Your task to perform on an android device: Search for hotels in Las Vegas Image 0: 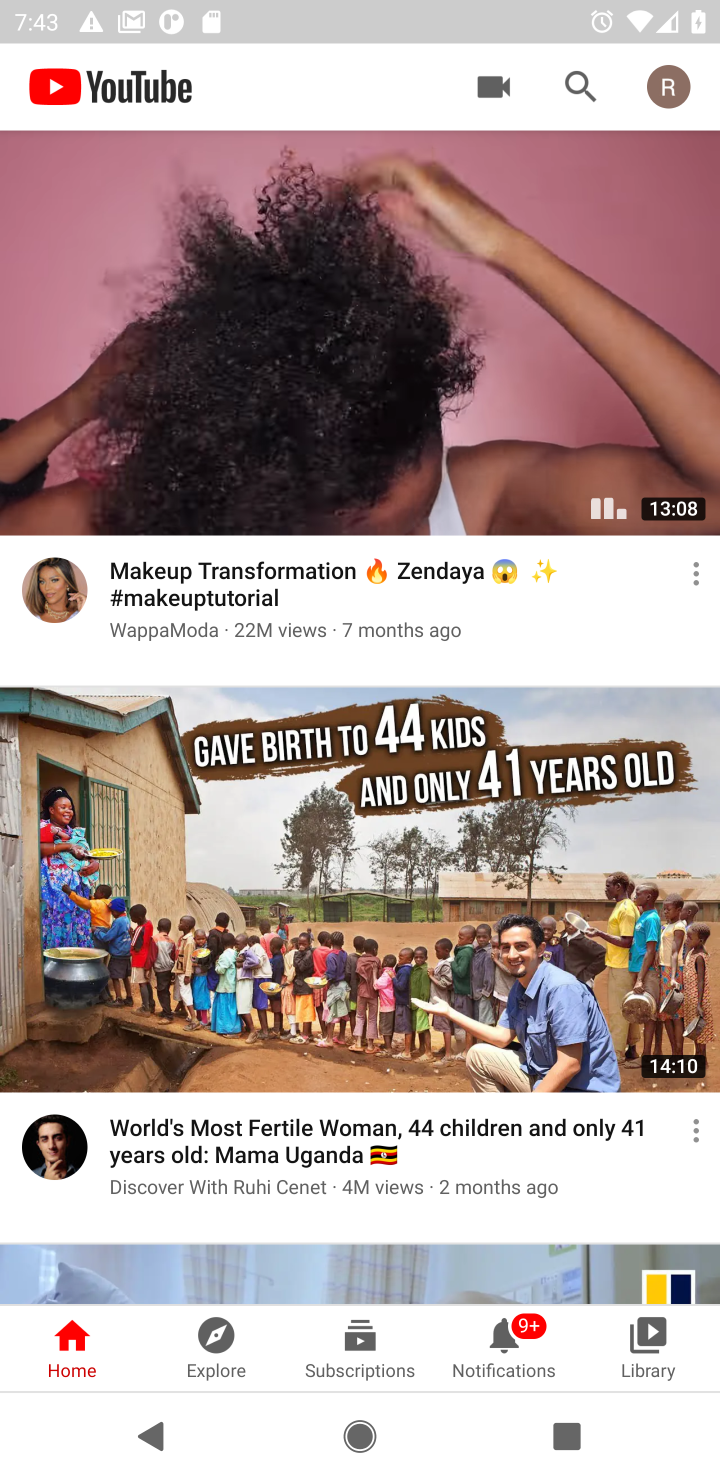
Step 0: press home button
Your task to perform on an android device: Search for hotels in Las Vegas Image 1: 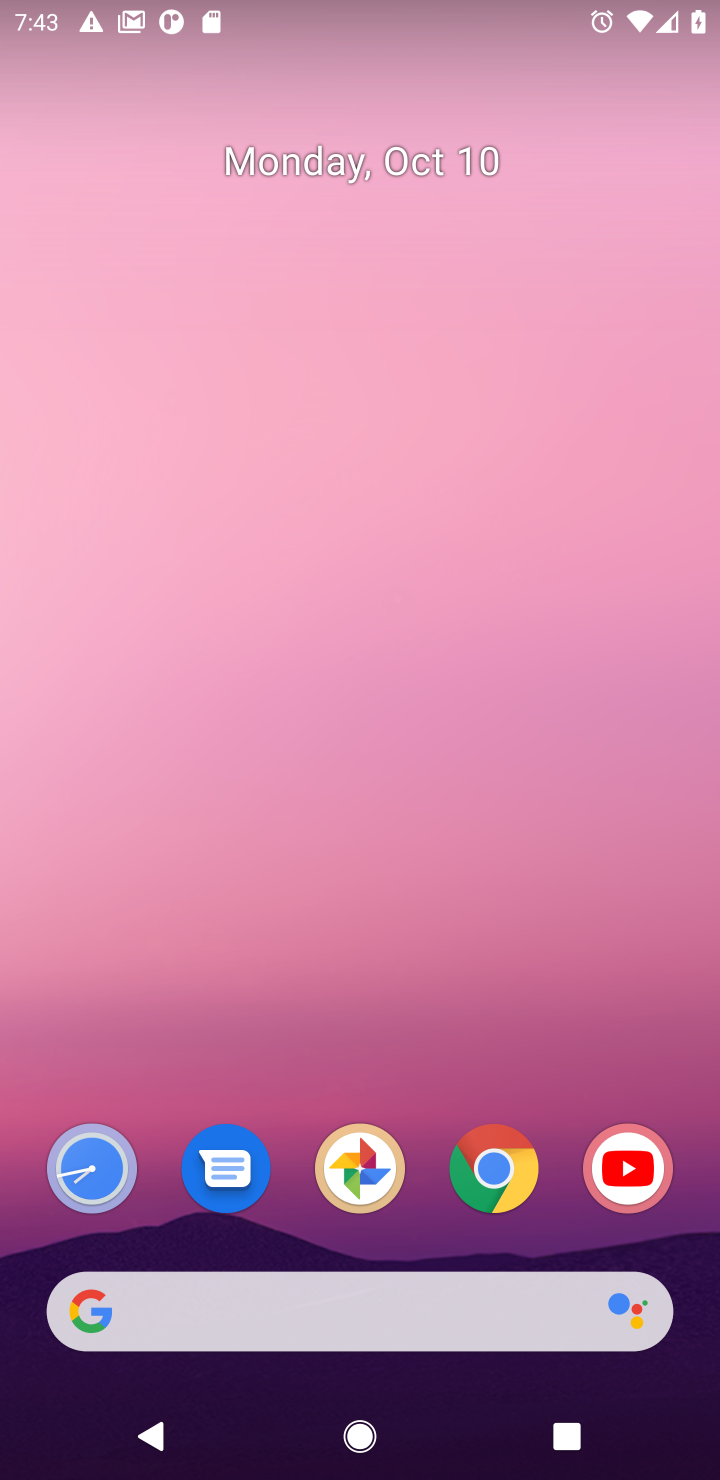
Step 1: click (492, 1172)
Your task to perform on an android device: Search for hotels in Las Vegas Image 2: 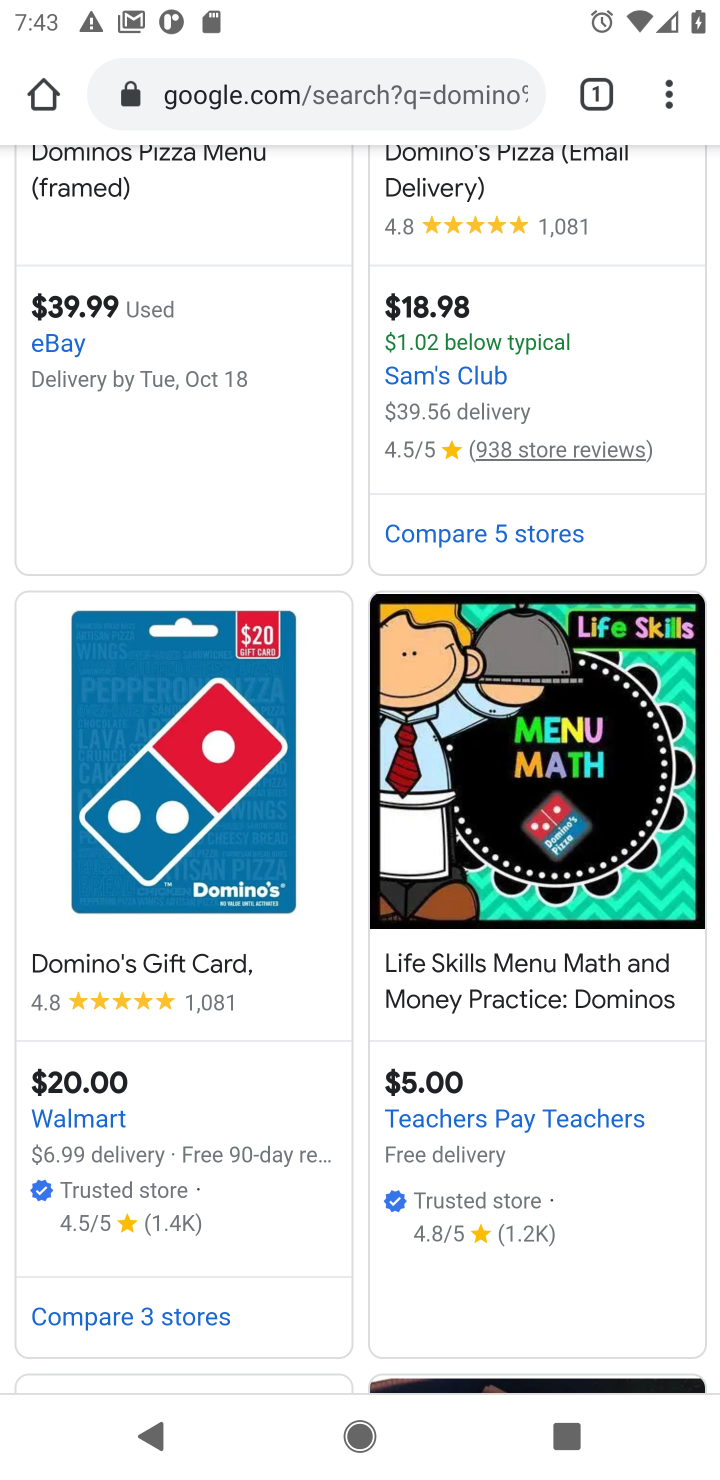
Step 2: click (281, 73)
Your task to perform on an android device: Search for hotels in Las Vegas Image 3: 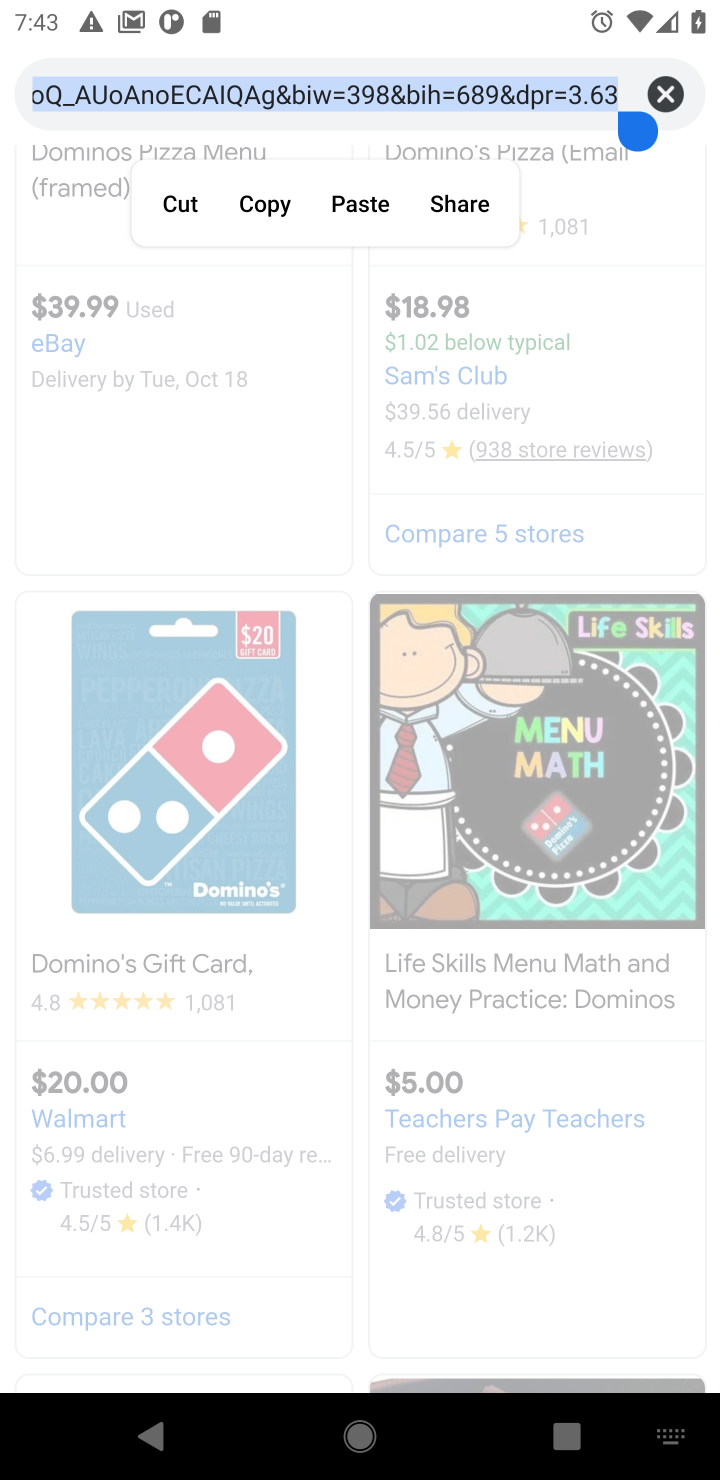
Step 3: click (685, 89)
Your task to perform on an android device: Search for hotels in Las Vegas Image 4: 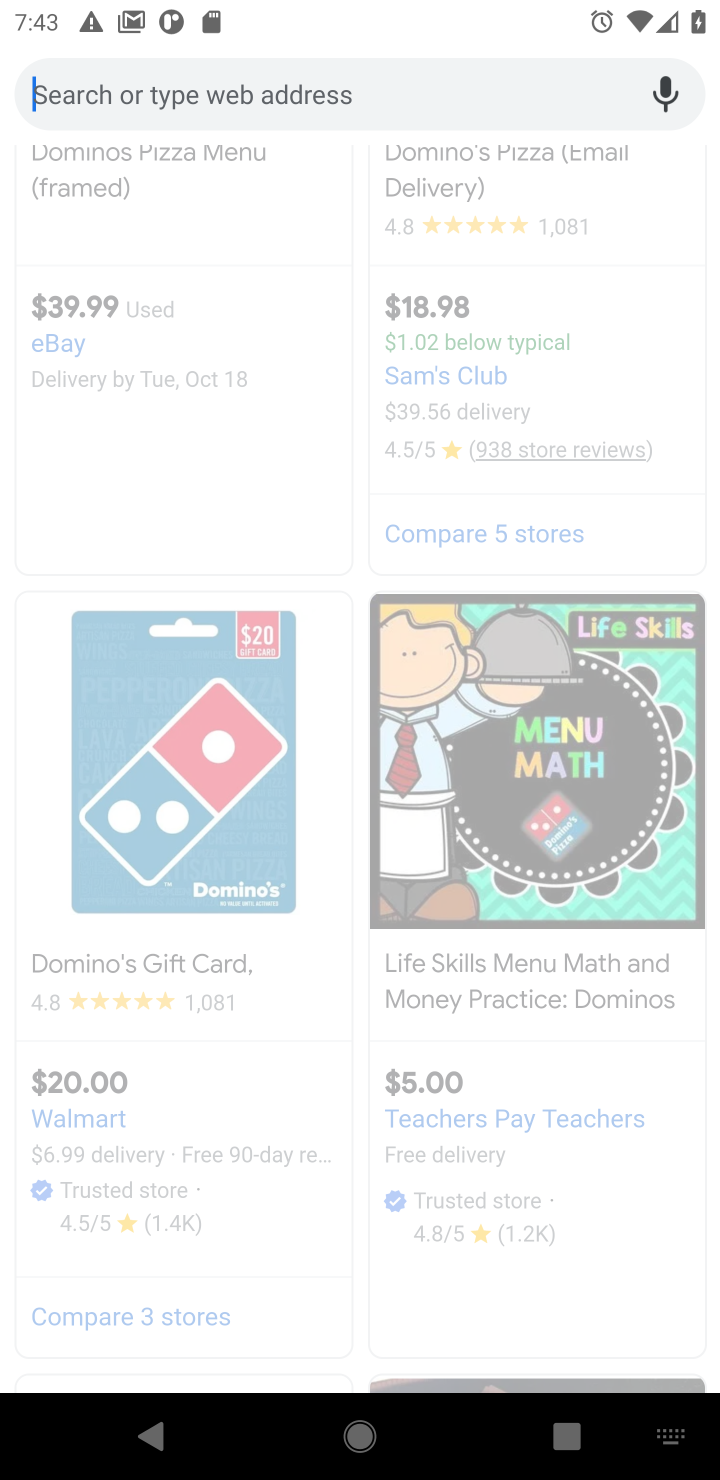
Step 4: click (315, 86)
Your task to perform on an android device: Search for hotels in Las Vegas Image 5: 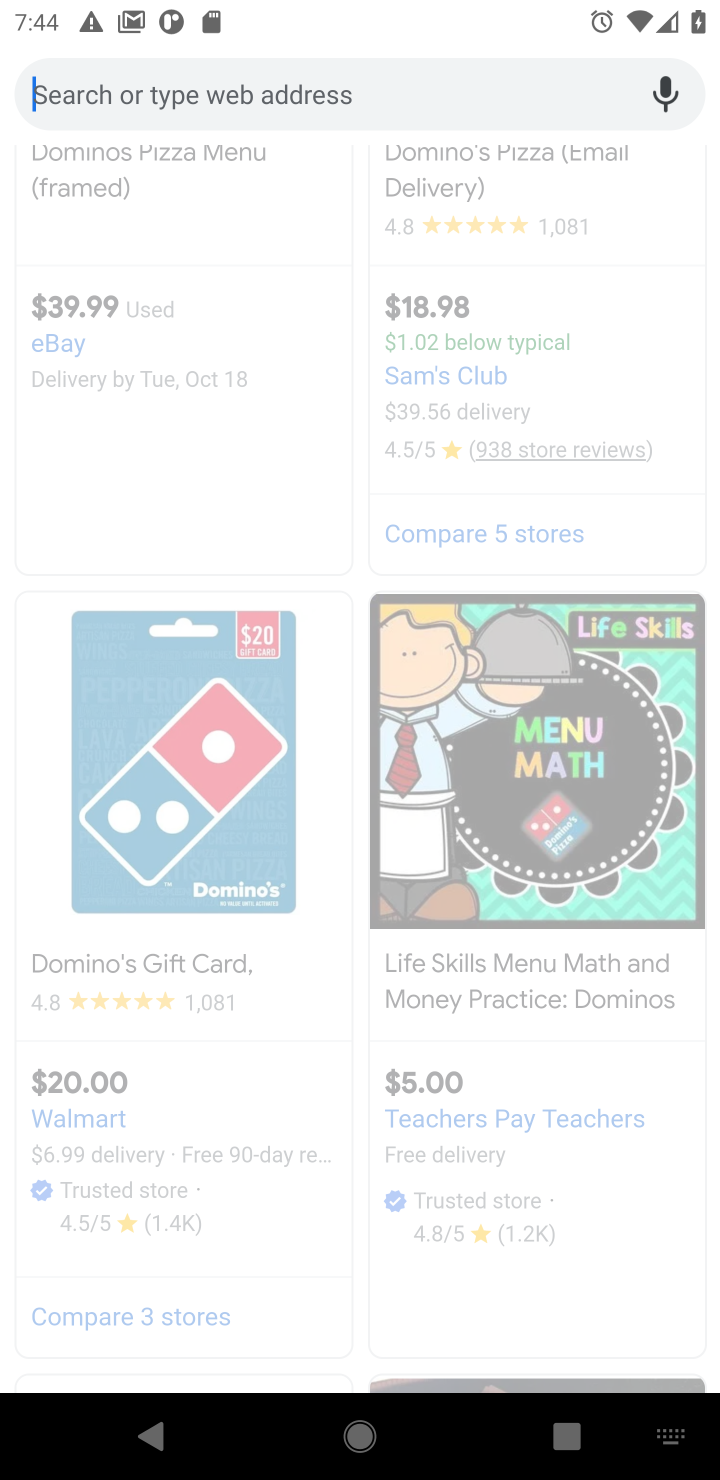
Step 5: type "hotels in las vegas"
Your task to perform on an android device: Search for hotels in Las Vegas Image 6: 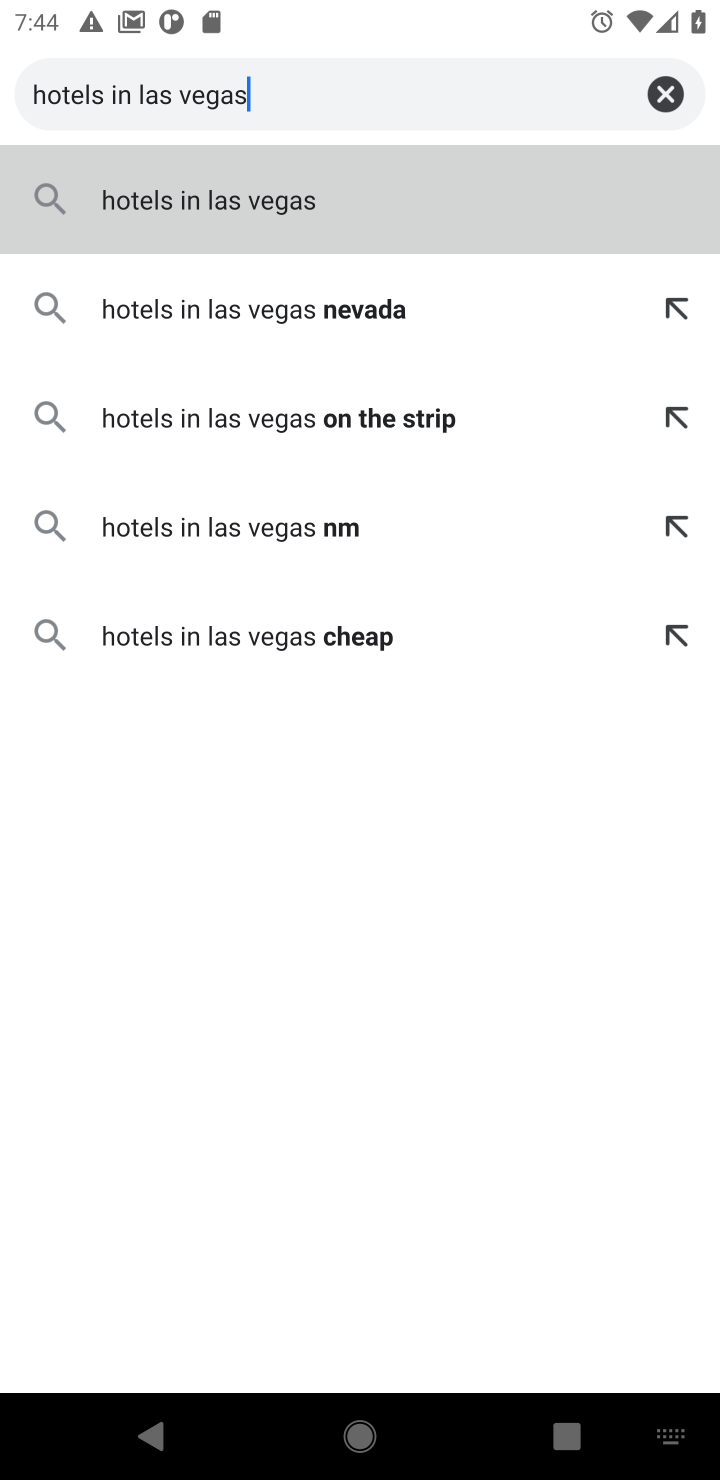
Step 6: click (220, 207)
Your task to perform on an android device: Search for hotels in Las Vegas Image 7: 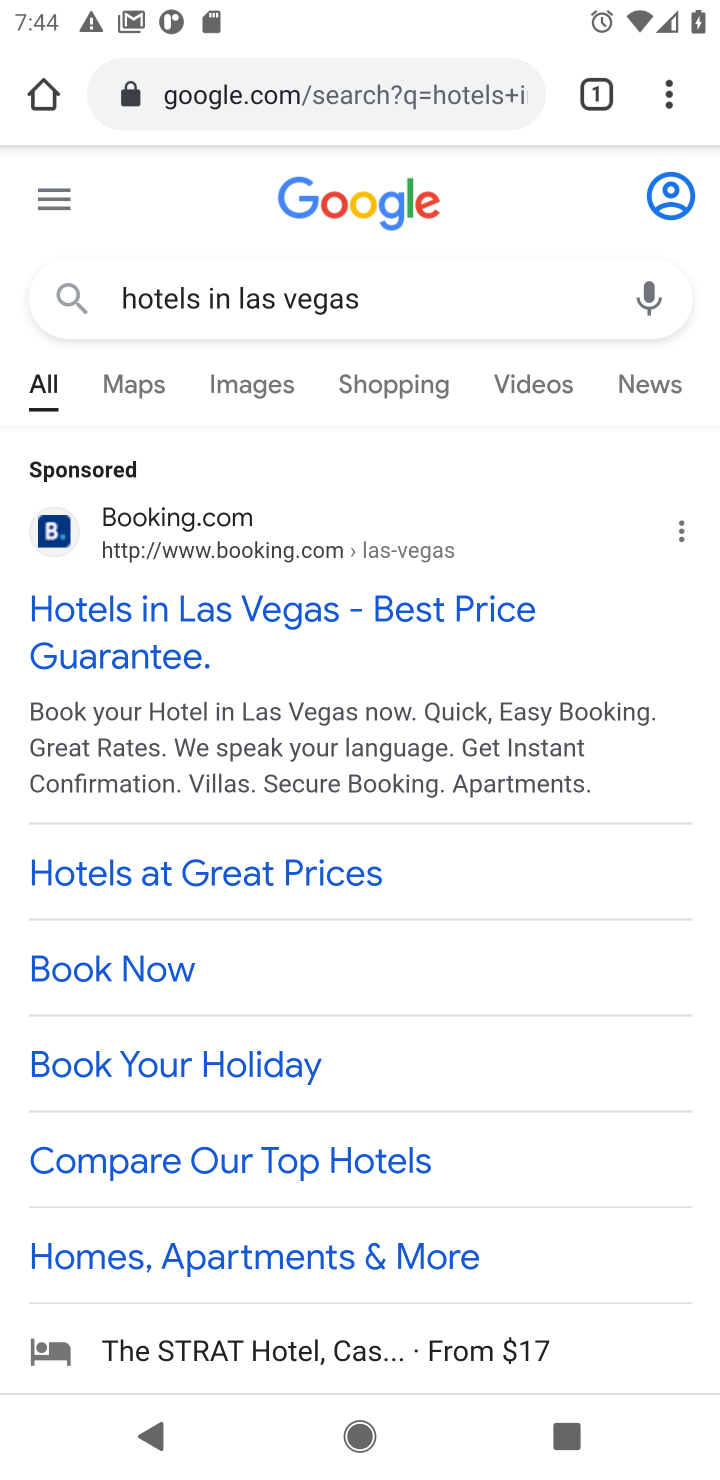
Step 7: click (140, 653)
Your task to perform on an android device: Search for hotels in Las Vegas Image 8: 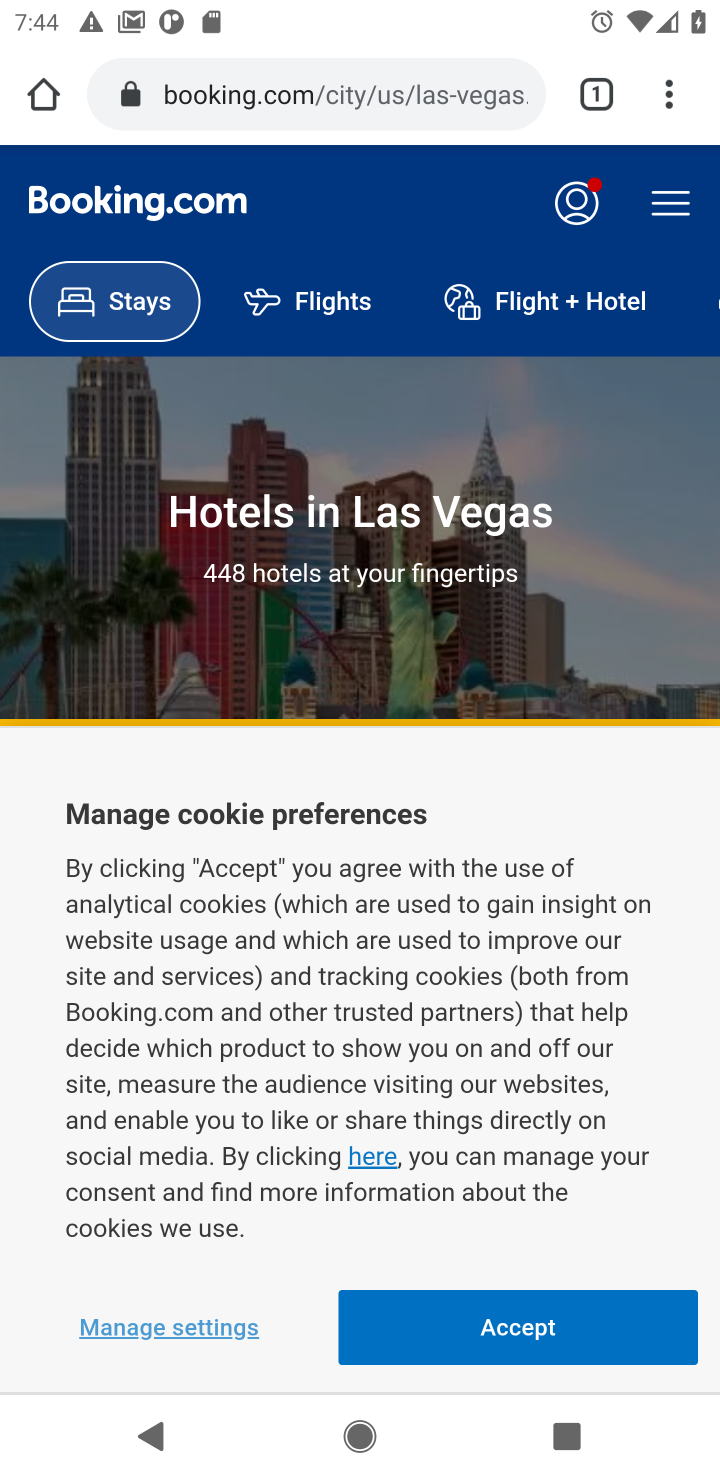
Step 8: task complete